Your task to perform on an android device: What is the recent news? Image 0: 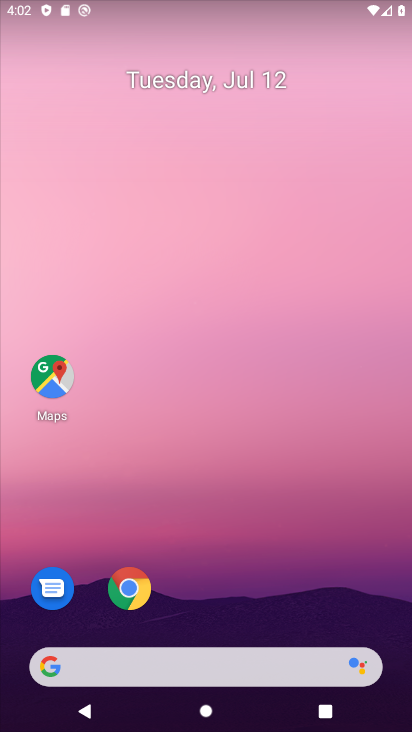
Step 0: drag from (198, 599) to (198, 278)
Your task to perform on an android device: What is the recent news? Image 1: 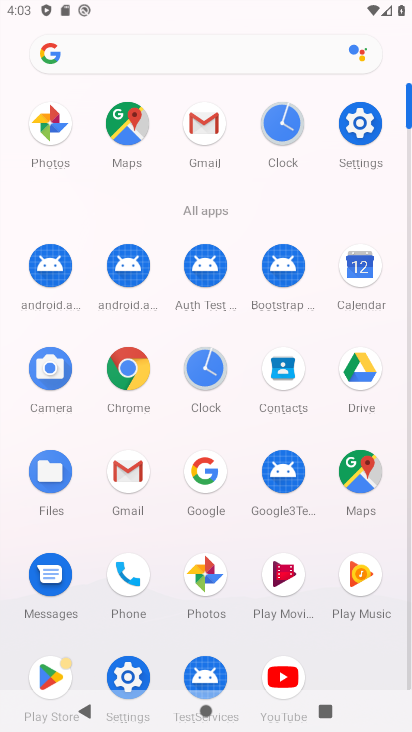
Step 1: click (198, 499)
Your task to perform on an android device: What is the recent news? Image 2: 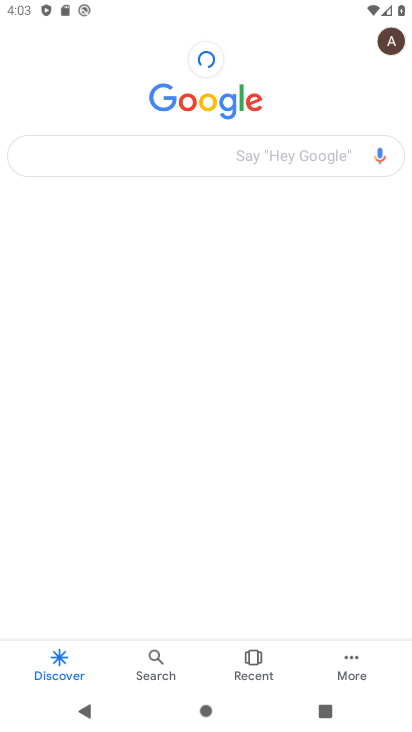
Step 2: click (190, 167)
Your task to perform on an android device: What is the recent news? Image 3: 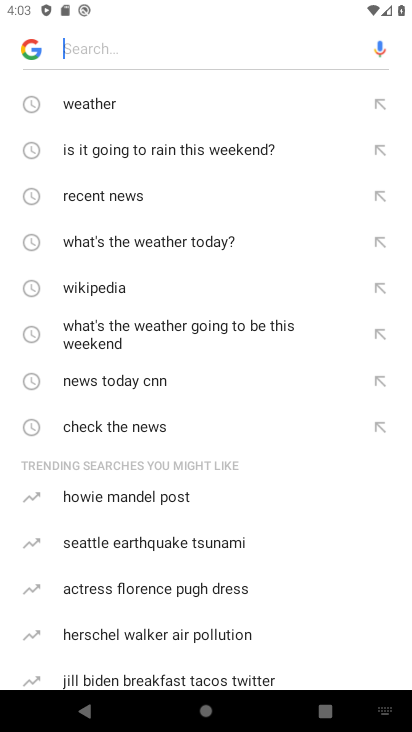
Step 3: click (123, 204)
Your task to perform on an android device: What is the recent news? Image 4: 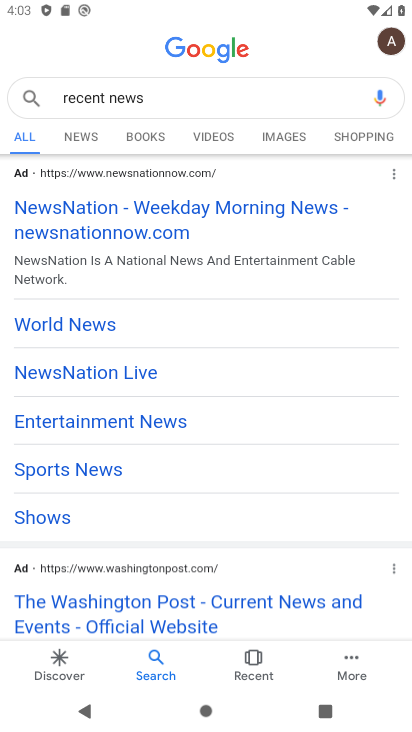
Step 4: click (85, 139)
Your task to perform on an android device: What is the recent news? Image 5: 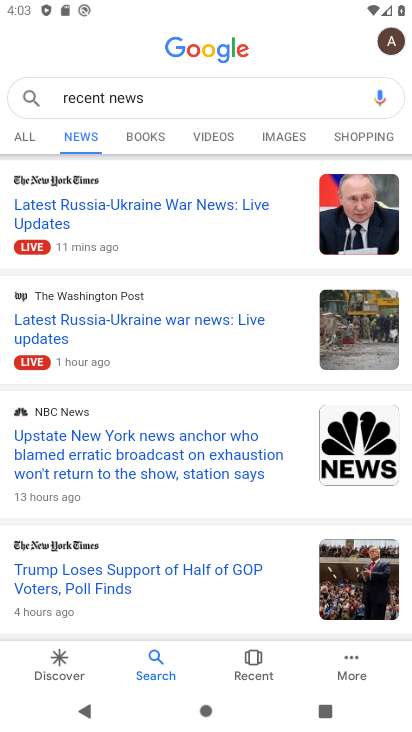
Step 5: task complete